Your task to perform on an android device: Go to Amazon Image 0: 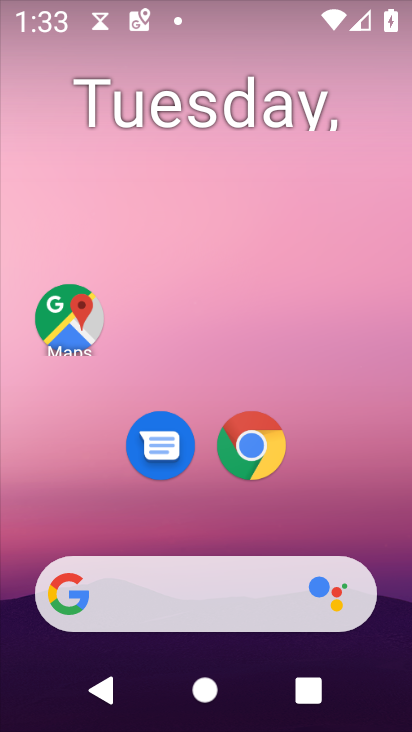
Step 0: drag from (327, 626) to (368, 96)
Your task to perform on an android device: Go to Amazon Image 1: 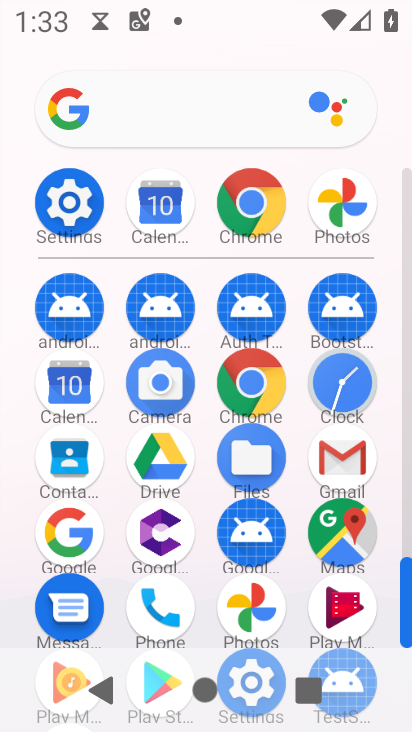
Step 1: click (243, 381)
Your task to perform on an android device: Go to Amazon Image 2: 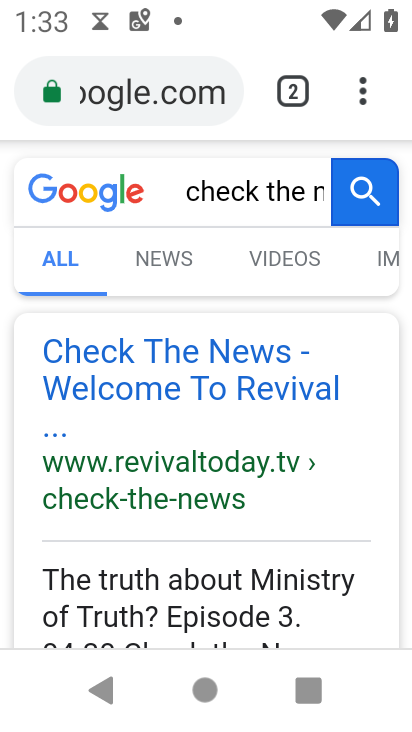
Step 2: drag from (355, 91) to (395, 433)
Your task to perform on an android device: Go to Amazon Image 3: 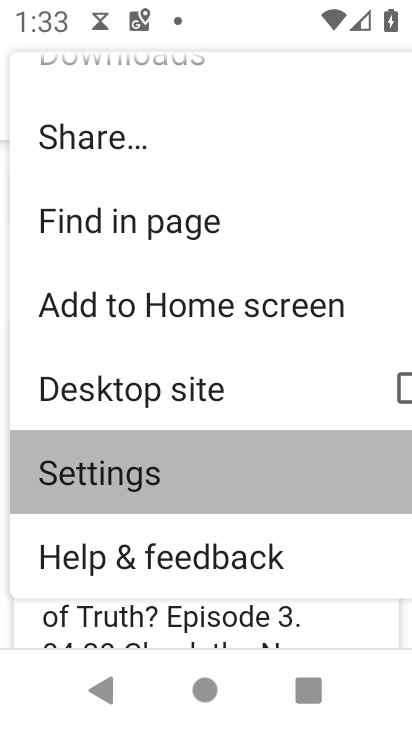
Step 3: press back button
Your task to perform on an android device: Go to Amazon Image 4: 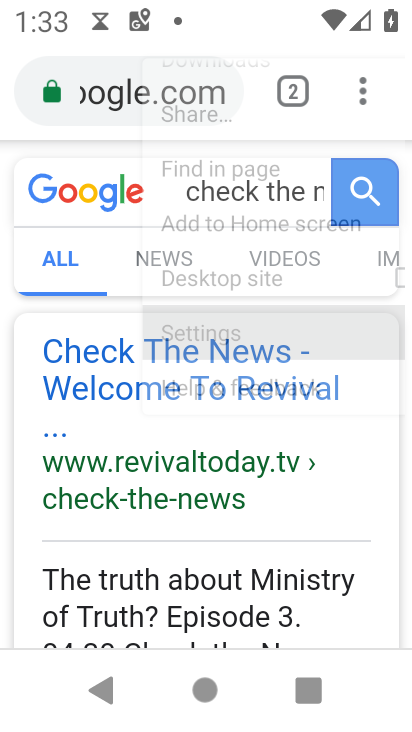
Step 4: drag from (395, 433) to (383, 298)
Your task to perform on an android device: Go to Amazon Image 5: 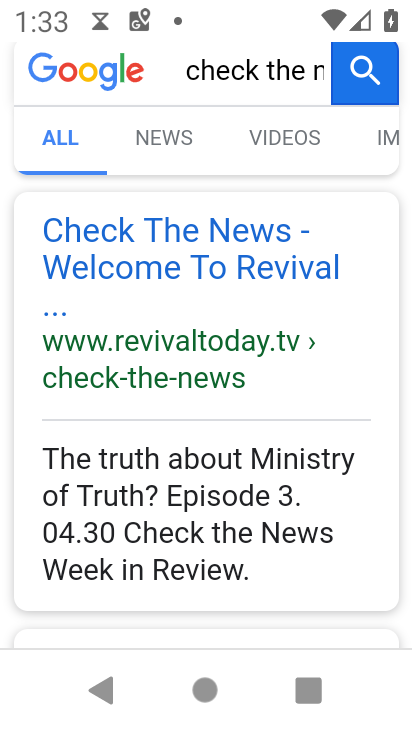
Step 5: drag from (316, 171) to (323, 530)
Your task to perform on an android device: Go to Amazon Image 6: 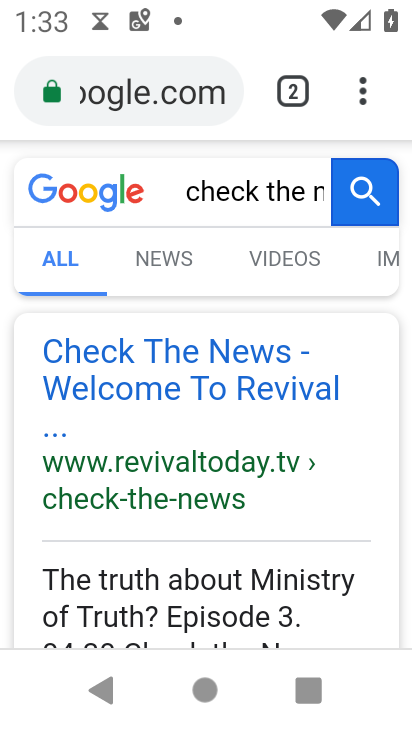
Step 6: drag from (361, 92) to (186, 169)
Your task to perform on an android device: Go to Amazon Image 7: 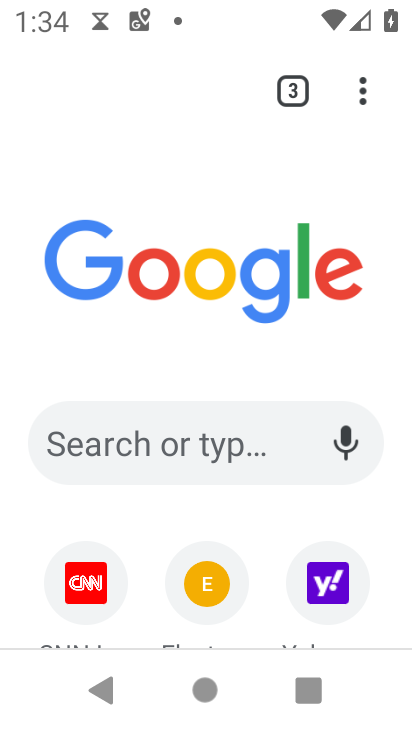
Step 7: drag from (262, 597) to (280, 25)
Your task to perform on an android device: Go to Amazon Image 8: 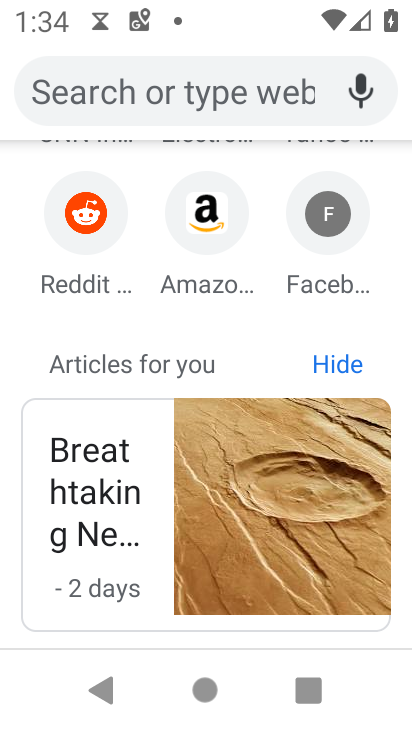
Step 8: click (208, 233)
Your task to perform on an android device: Go to Amazon Image 9: 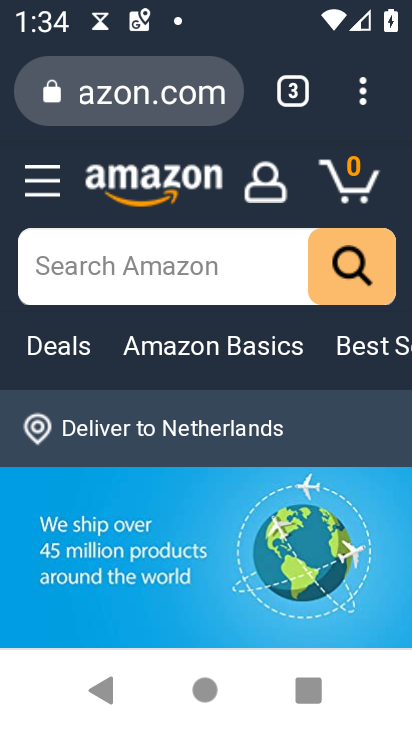
Step 9: task complete